Your task to perform on an android device: turn on showing notifications on the lock screen Image 0: 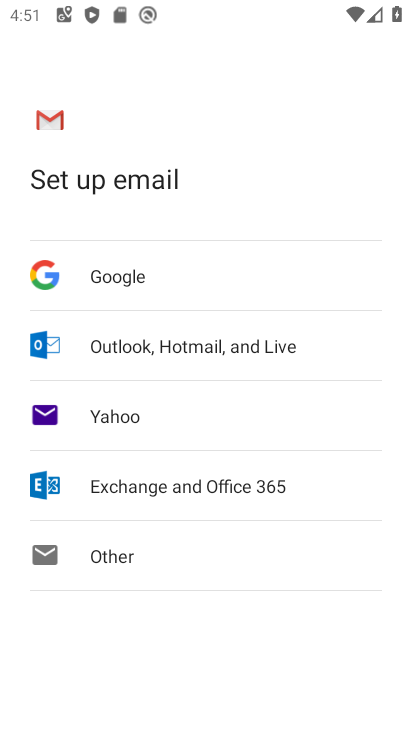
Step 0: press back button
Your task to perform on an android device: turn on showing notifications on the lock screen Image 1: 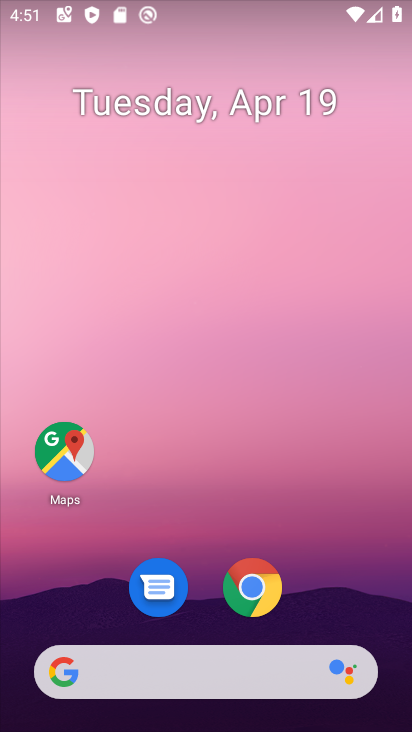
Step 1: drag from (333, 461) to (244, 32)
Your task to perform on an android device: turn on showing notifications on the lock screen Image 2: 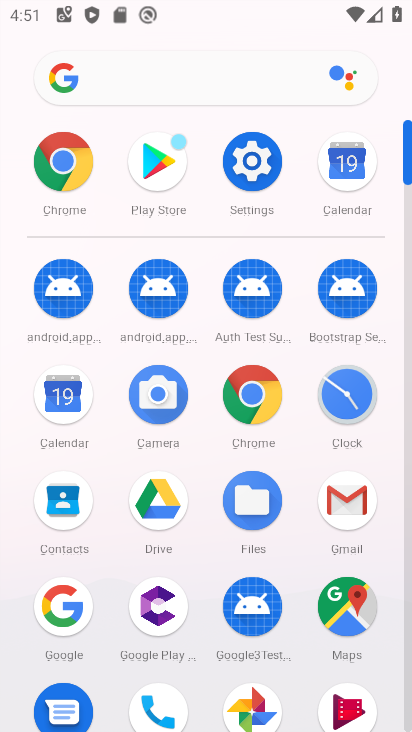
Step 2: click (258, 152)
Your task to perform on an android device: turn on showing notifications on the lock screen Image 3: 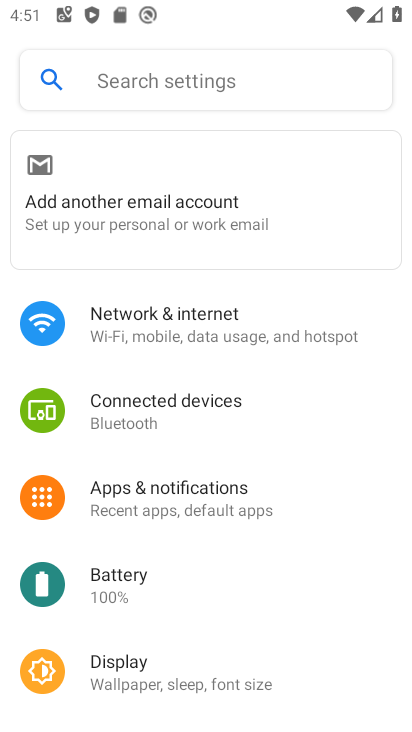
Step 3: drag from (270, 500) to (252, 108)
Your task to perform on an android device: turn on showing notifications on the lock screen Image 4: 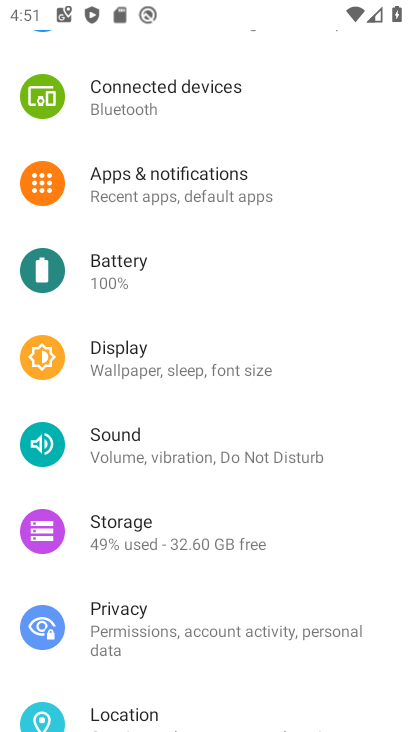
Step 4: drag from (331, 517) to (302, 188)
Your task to perform on an android device: turn on showing notifications on the lock screen Image 5: 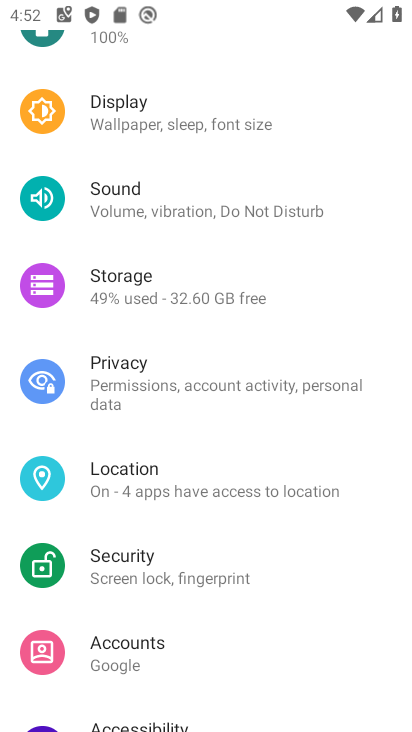
Step 5: drag from (230, 203) to (233, 543)
Your task to perform on an android device: turn on showing notifications on the lock screen Image 6: 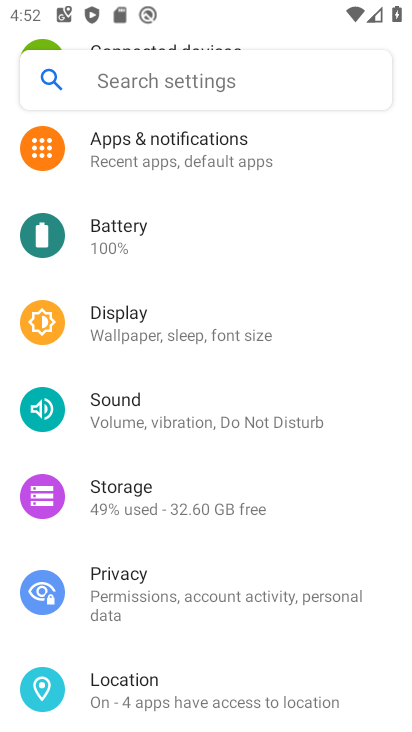
Step 6: click (167, 155)
Your task to perform on an android device: turn on showing notifications on the lock screen Image 7: 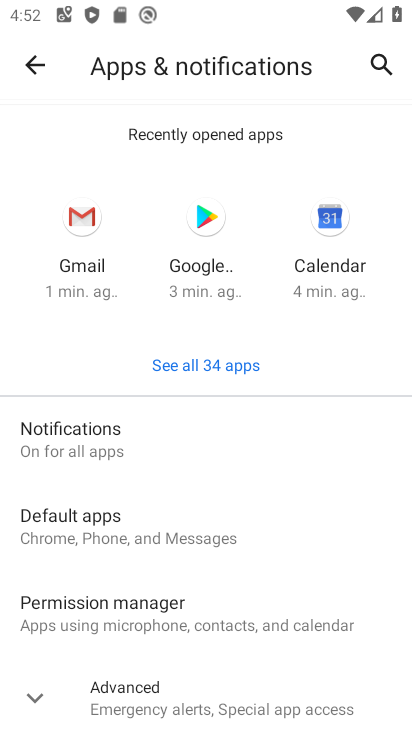
Step 7: click (128, 424)
Your task to perform on an android device: turn on showing notifications on the lock screen Image 8: 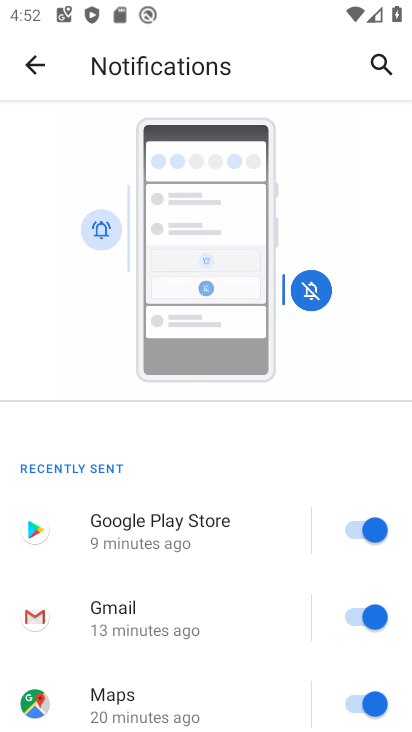
Step 8: drag from (232, 578) to (226, 247)
Your task to perform on an android device: turn on showing notifications on the lock screen Image 9: 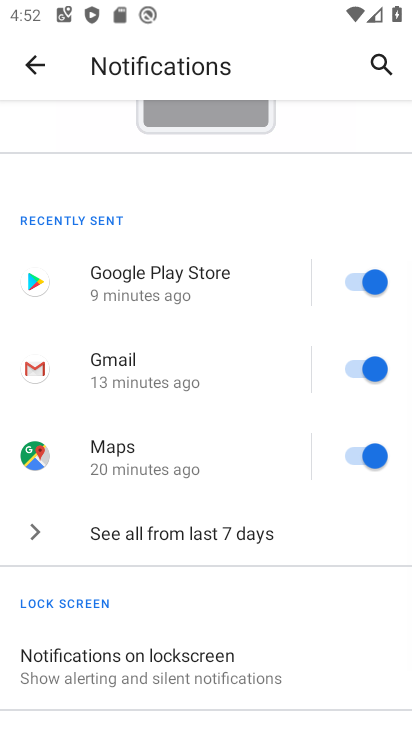
Step 9: drag from (223, 550) to (213, 254)
Your task to perform on an android device: turn on showing notifications on the lock screen Image 10: 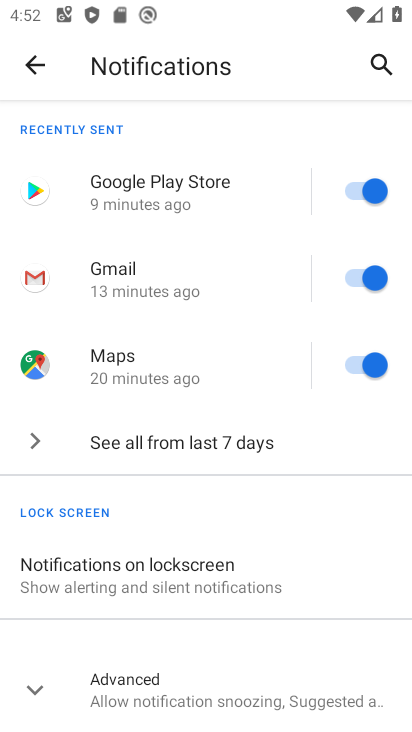
Step 10: drag from (183, 491) to (174, 159)
Your task to perform on an android device: turn on showing notifications on the lock screen Image 11: 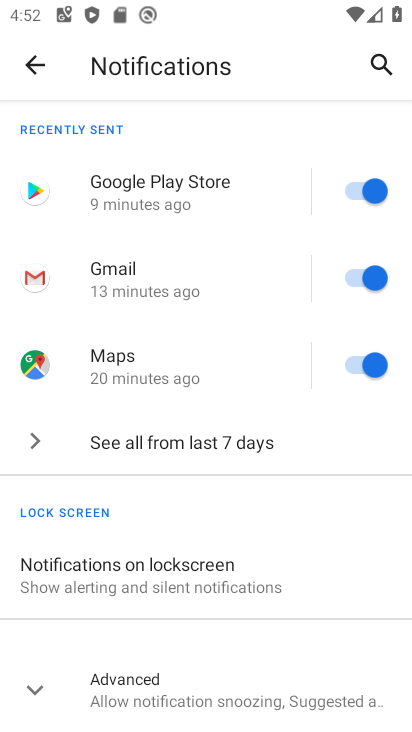
Step 11: click (155, 672)
Your task to perform on an android device: turn on showing notifications on the lock screen Image 12: 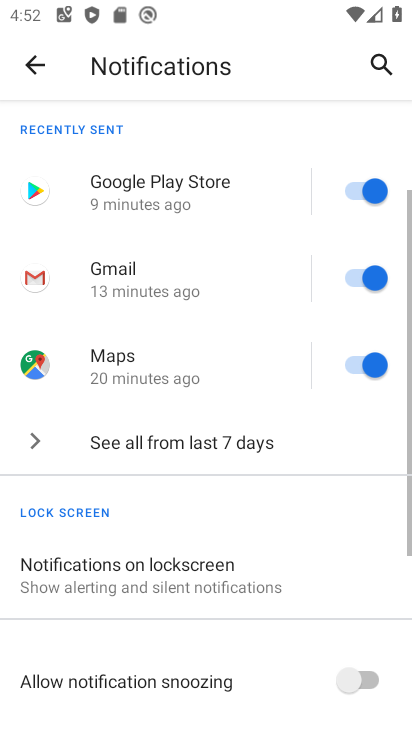
Step 12: drag from (221, 629) to (216, 351)
Your task to perform on an android device: turn on showing notifications on the lock screen Image 13: 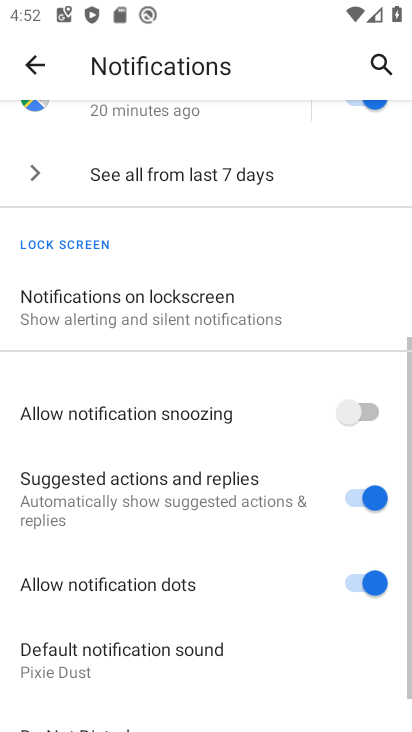
Step 13: click (164, 303)
Your task to perform on an android device: turn on showing notifications on the lock screen Image 14: 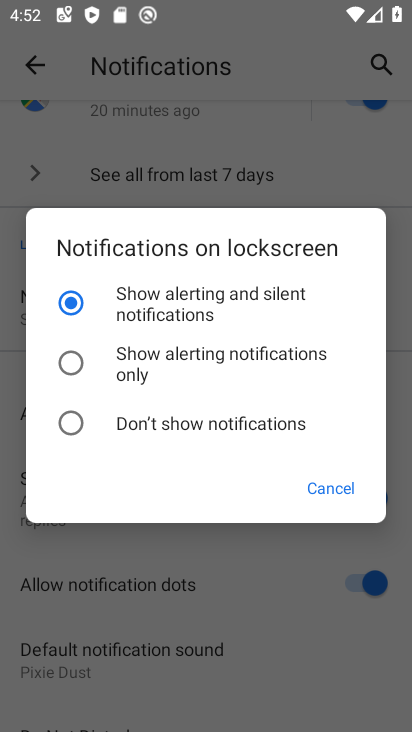
Step 14: click (145, 309)
Your task to perform on an android device: turn on showing notifications on the lock screen Image 15: 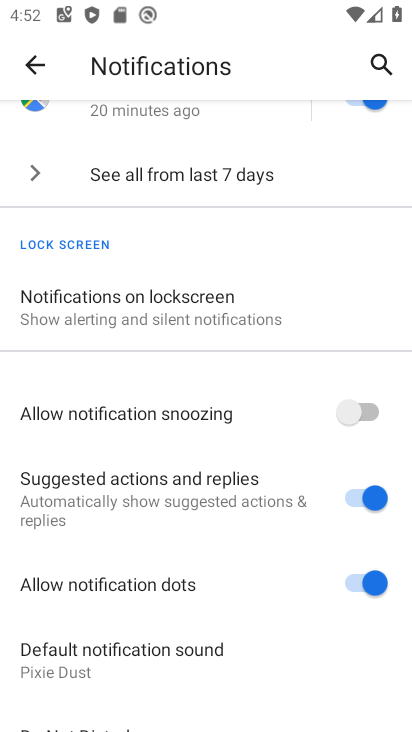
Step 15: task complete